Your task to perform on an android device: turn on wifi Image 0: 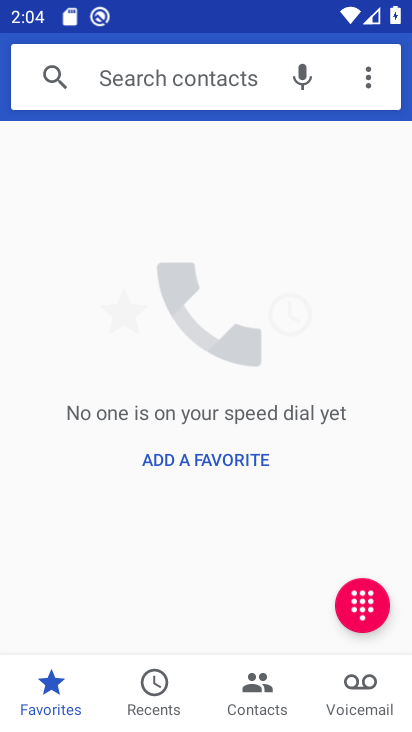
Step 0: press home button
Your task to perform on an android device: turn on wifi Image 1: 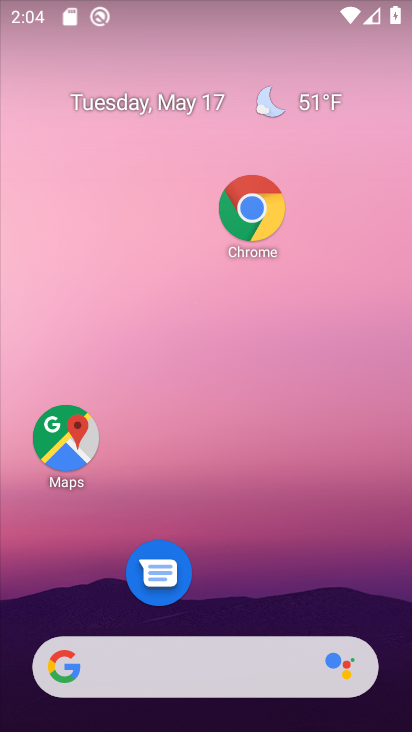
Step 1: drag from (225, 633) to (238, 0)
Your task to perform on an android device: turn on wifi Image 2: 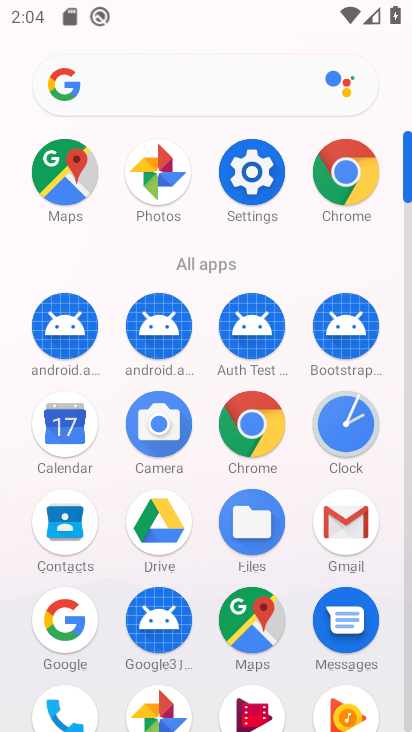
Step 2: click (244, 173)
Your task to perform on an android device: turn on wifi Image 3: 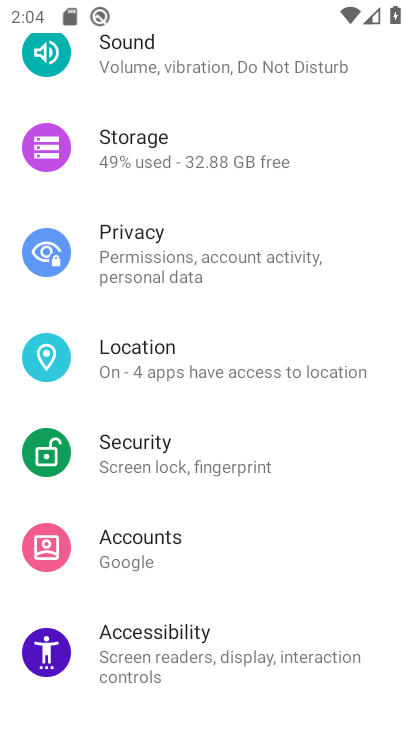
Step 3: drag from (244, 173) to (233, 725)
Your task to perform on an android device: turn on wifi Image 4: 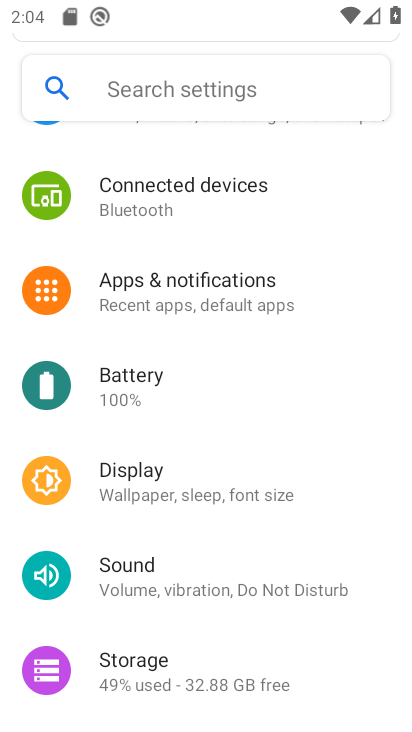
Step 4: drag from (175, 308) to (173, 628)
Your task to perform on an android device: turn on wifi Image 5: 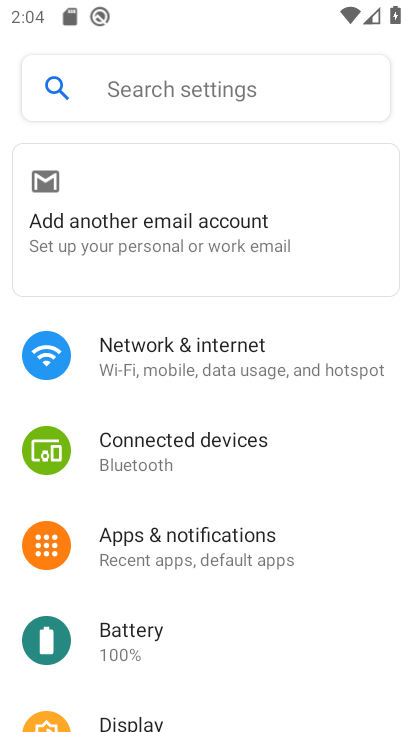
Step 5: click (141, 351)
Your task to perform on an android device: turn on wifi Image 6: 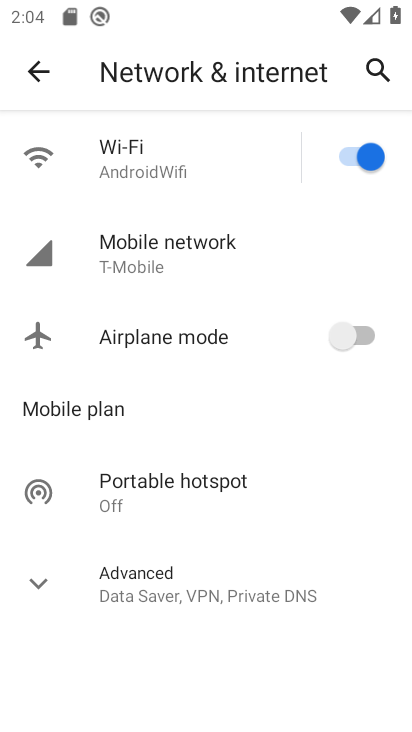
Step 6: click (157, 179)
Your task to perform on an android device: turn on wifi Image 7: 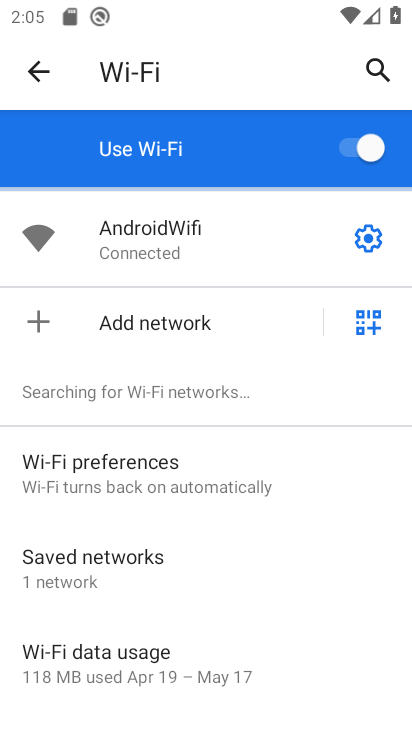
Step 7: task complete